Your task to perform on an android device: turn off notifications settings in the gmail app Image 0: 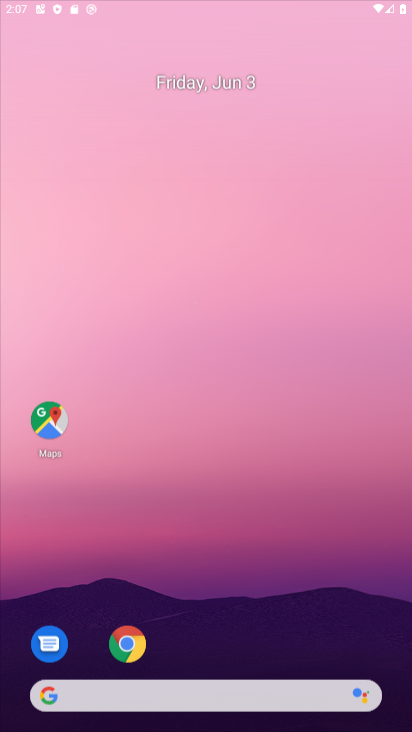
Step 0: click (142, 637)
Your task to perform on an android device: turn off notifications settings in the gmail app Image 1: 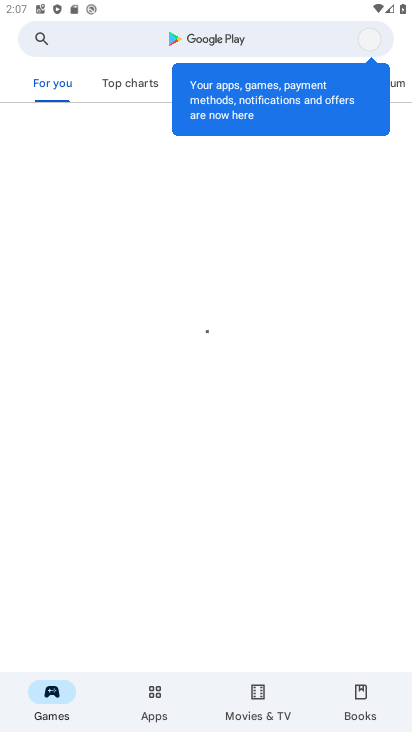
Step 1: press home button
Your task to perform on an android device: turn off notifications settings in the gmail app Image 2: 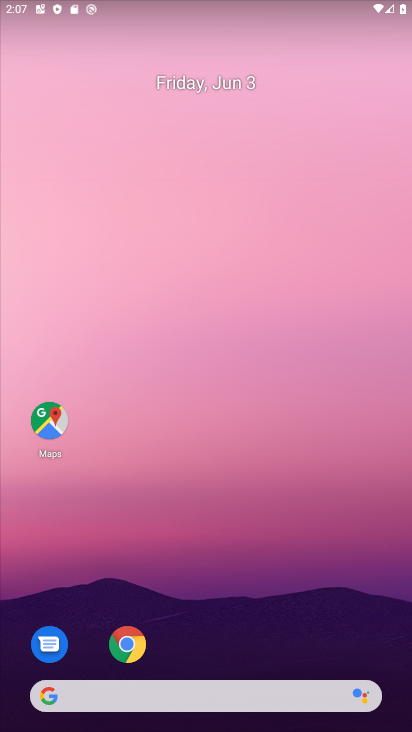
Step 2: drag from (195, 620) to (195, 134)
Your task to perform on an android device: turn off notifications settings in the gmail app Image 3: 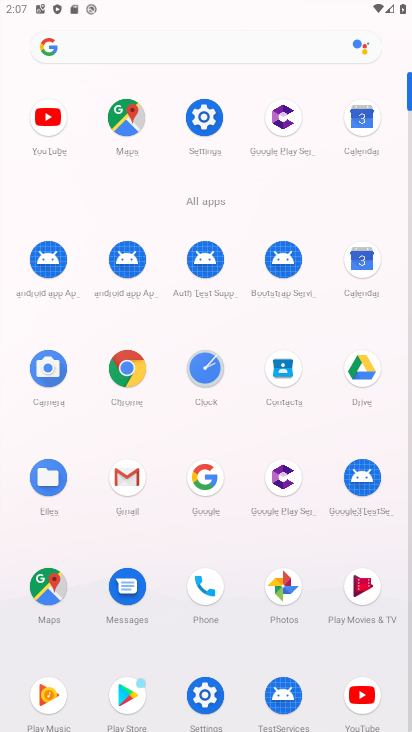
Step 3: click (114, 477)
Your task to perform on an android device: turn off notifications settings in the gmail app Image 4: 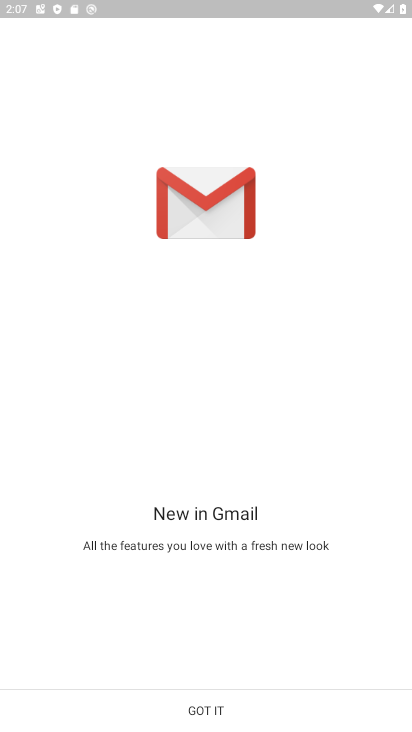
Step 4: click (216, 697)
Your task to perform on an android device: turn off notifications settings in the gmail app Image 5: 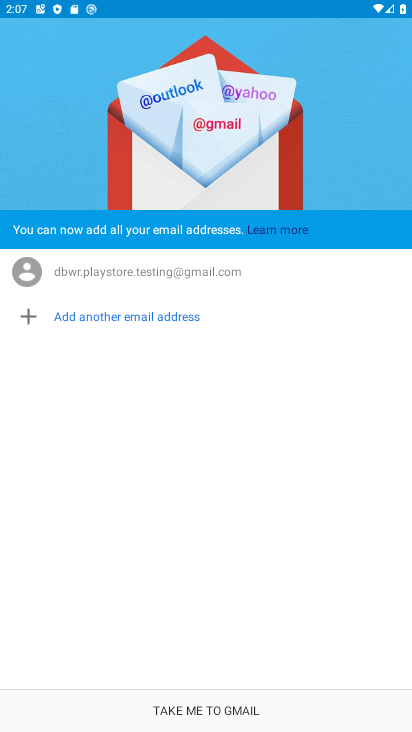
Step 5: click (216, 704)
Your task to perform on an android device: turn off notifications settings in the gmail app Image 6: 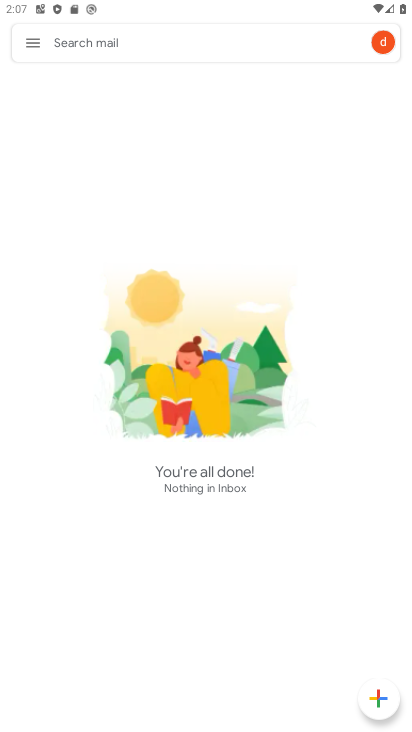
Step 6: click (40, 30)
Your task to perform on an android device: turn off notifications settings in the gmail app Image 7: 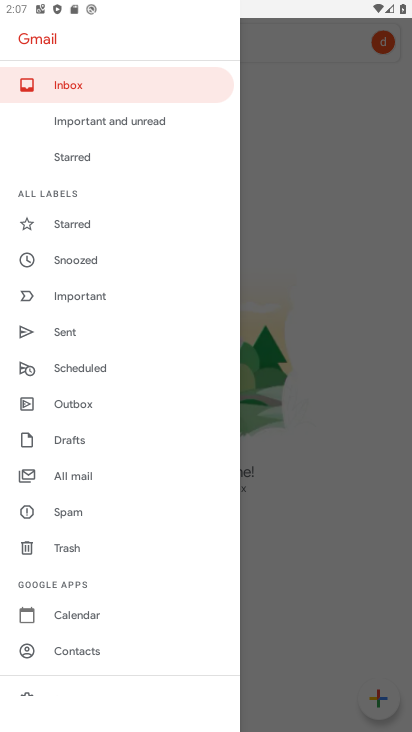
Step 7: drag from (98, 639) to (115, 224)
Your task to perform on an android device: turn off notifications settings in the gmail app Image 8: 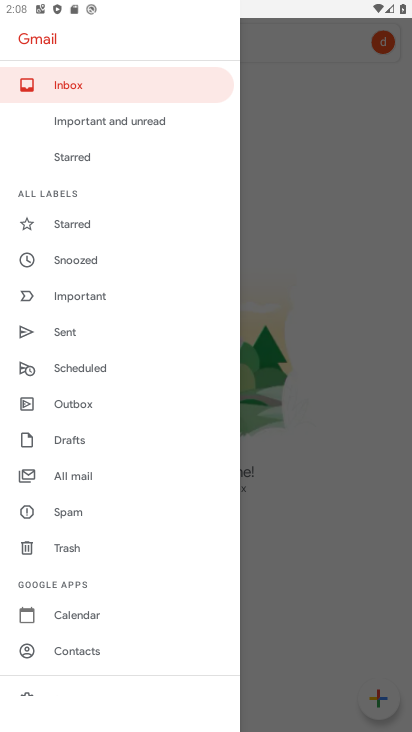
Step 8: drag from (75, 544) to (108, 241)
Your task to perform on an android device: turn off notifications settings in the gmail app Image 9: 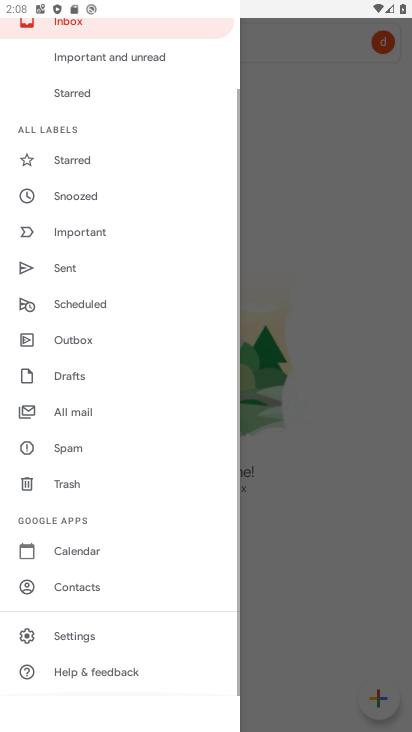
Step 9: click (108, 627)
Your task to perform on an android device: turn off notifications settings in the gmail app Image 10: 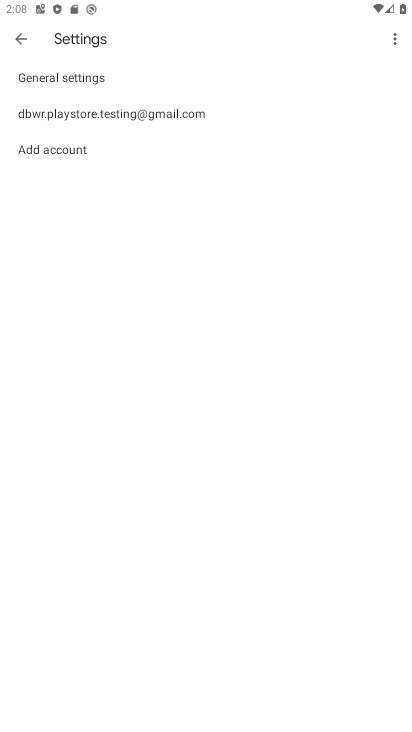
Step 10: click (137, 105)
Your task to perform on an android device: turn off notifications settings in the gmail app Image 11: 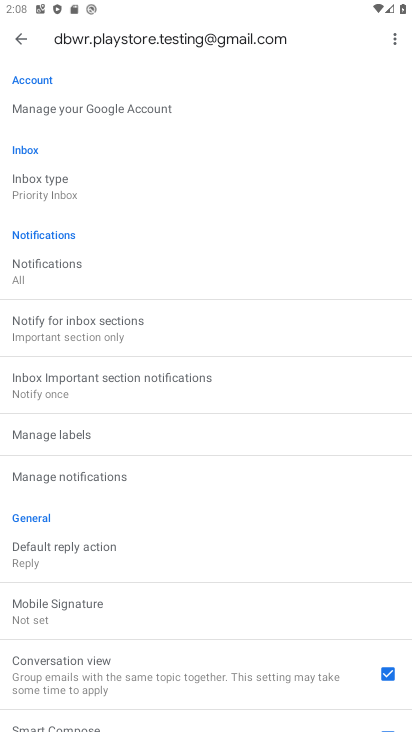
Step 11: click (89, 465)
Your task to perform on an android device: turn off notifications settings in the gmail app Image 12: 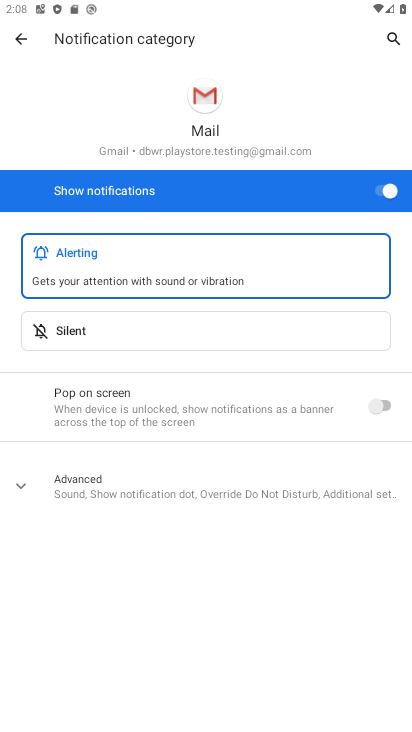
Step 12: click (374, 187)
Your task to perform on an android device: turn off notifications settings in the gmail app Image 13: 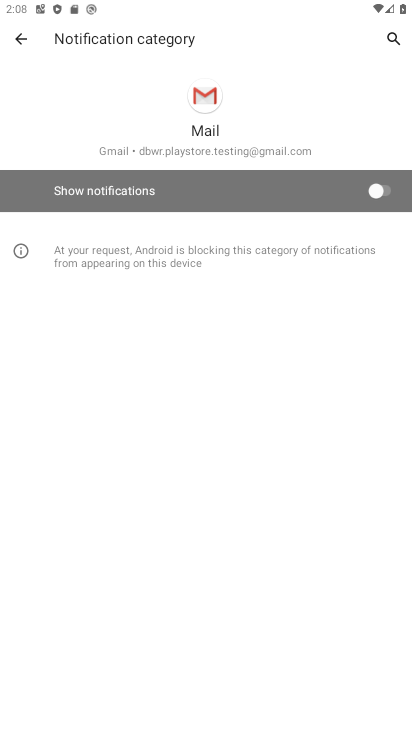
Step 13: task complete